Your task to perform on an android device: Toggle the flashlight Image 0: 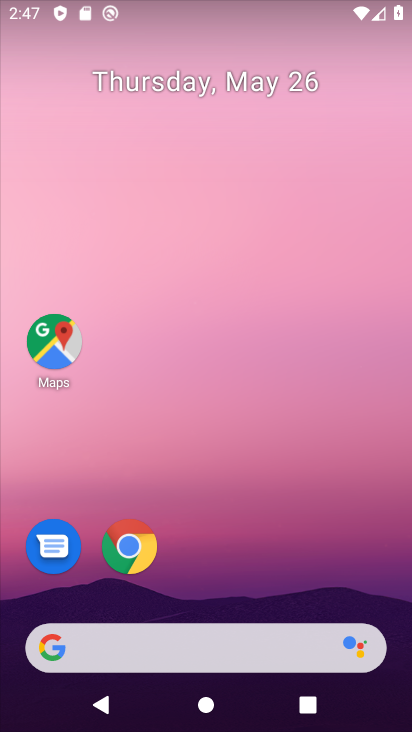
Step 0: drag from (236, 0) to (248, 571)
Your task to perform on an android device: Toggle the flashlight Image 1: 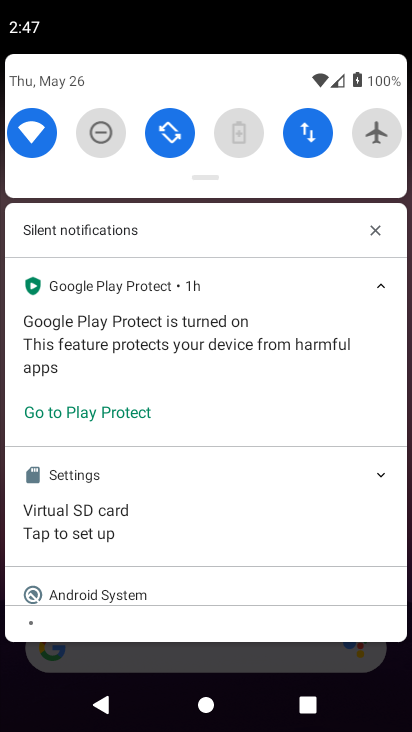
Step 1: task complete